Your task to perform on an android device: Go to privacy settings Image 0: 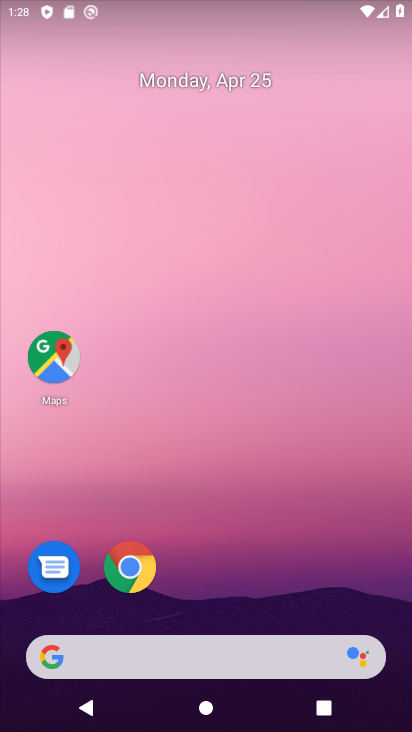
Step 0: drag from (366, 582) to (308, 157)
Your task to perform on an android device: Go to privacy settings Image 1: 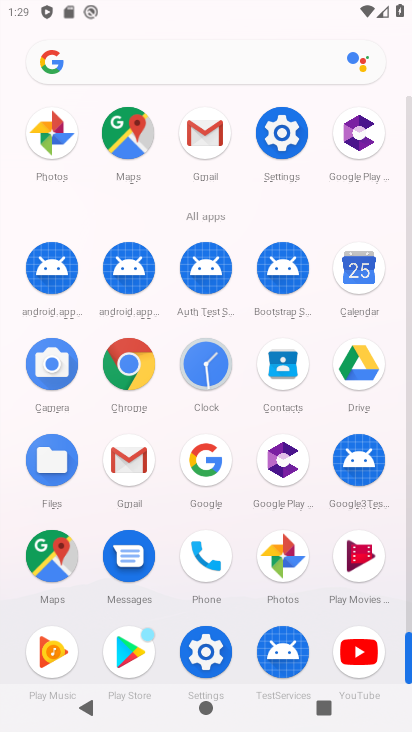
Step 1: click (208, 653)
Your task to perform on an android device: Go to privacy settings Image 2: 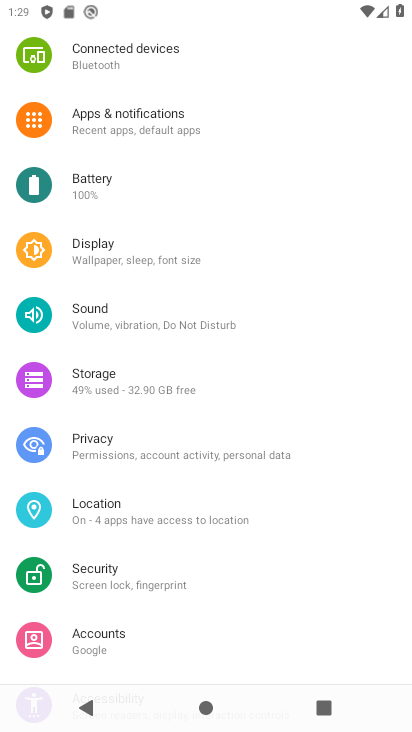
Step 2: click (113, 450)
Your task to perform on an android device: Go to privacy settings Image 3: 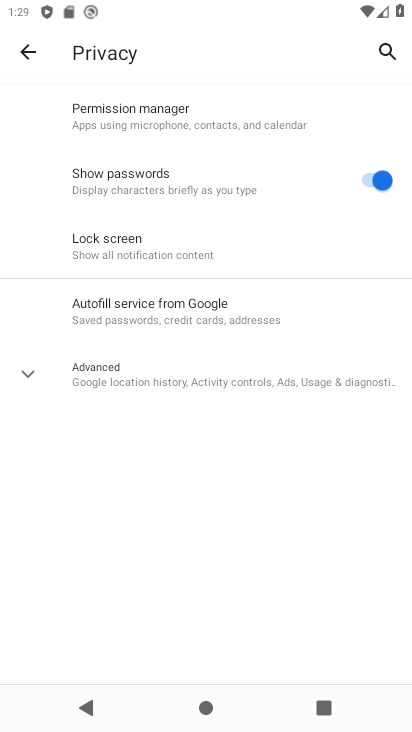
Step 3: click (27, 376)
Your task to perform on an android device: Go to privacy settings Image 4: 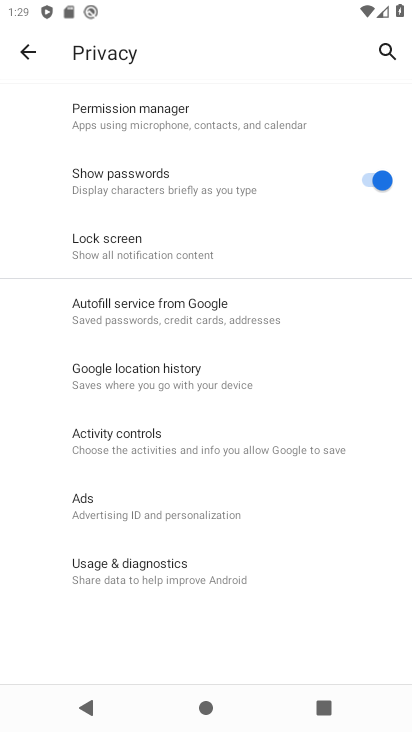
Step 4: task complete